Your task to perform on an android device: all mails in gmail Image 0: 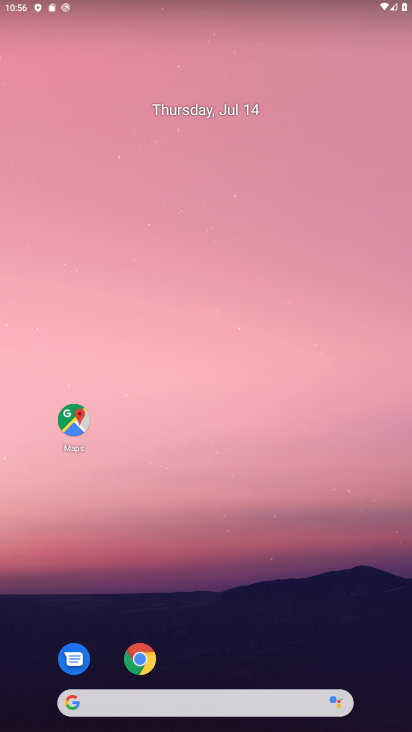
Step 0: drag from (230, 684) to (290, 387)
Your task to perform on an android device: all mails in gmail Image 1: 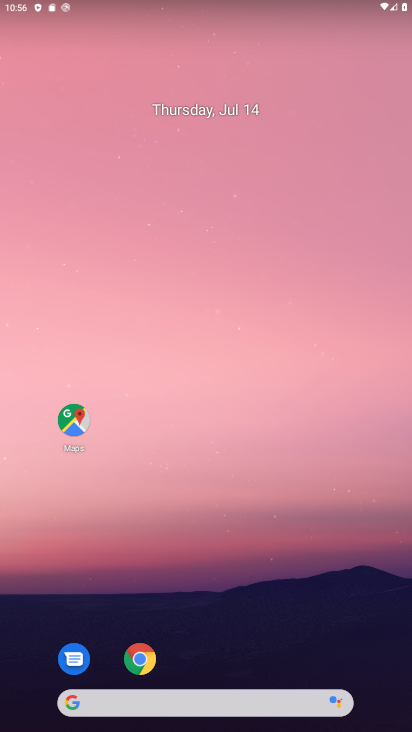
Step 1: drag from (230, 615) to (331, 55)
Your task to perform on an android device: all mails in gmail Image 2: 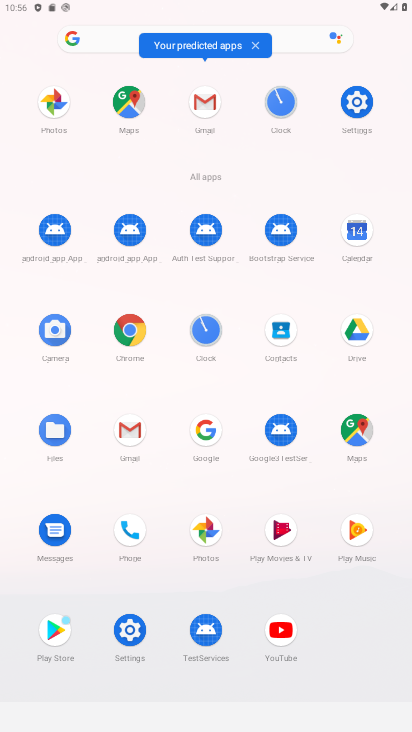
Step 2: click (131, 429)
Your task to perform on an android device: all mails in gmail Image 3: 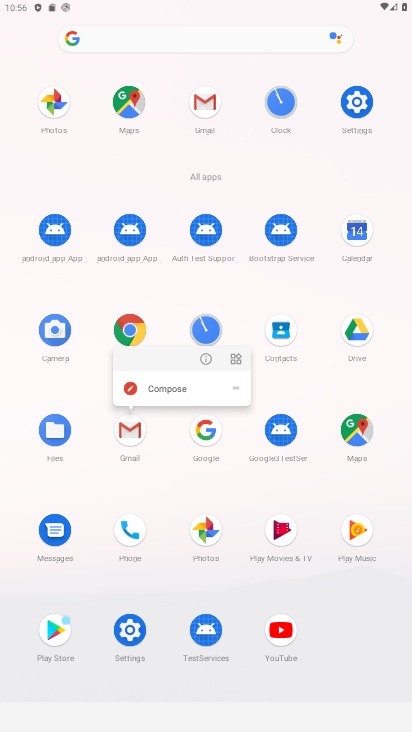
Step 3: click (131, 428)
Your task to perform on an android device: all mails in gmail Image 4: 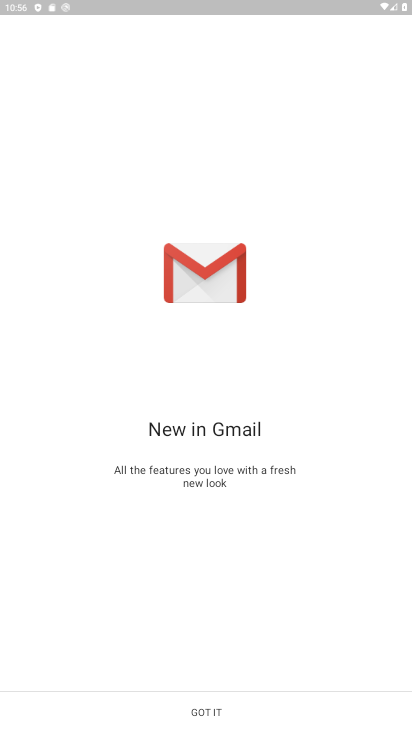
Step 4: click (200, 711)
Your task to perform on an android device: all mails in gmail Image 5: 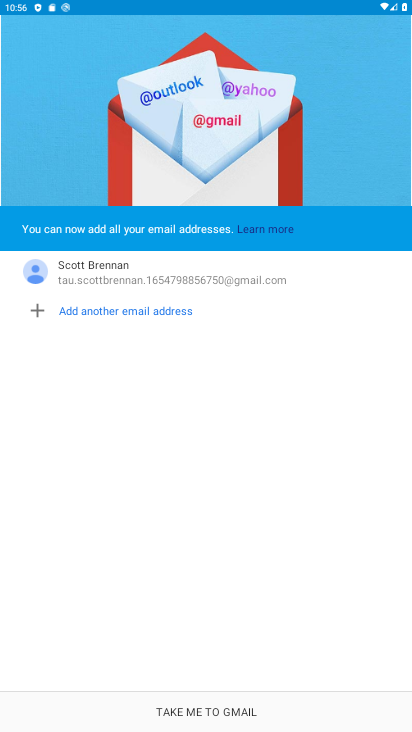
Step 5: click (206, 711)
Your task to perform on an android device: all mails in gmail Image 6: 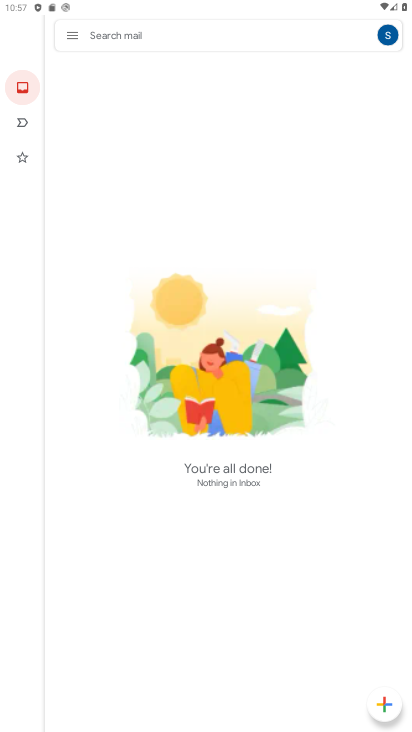
Step 6: click (75, 46)
Your task to perform on an android device: all mails in gmail Image 7: 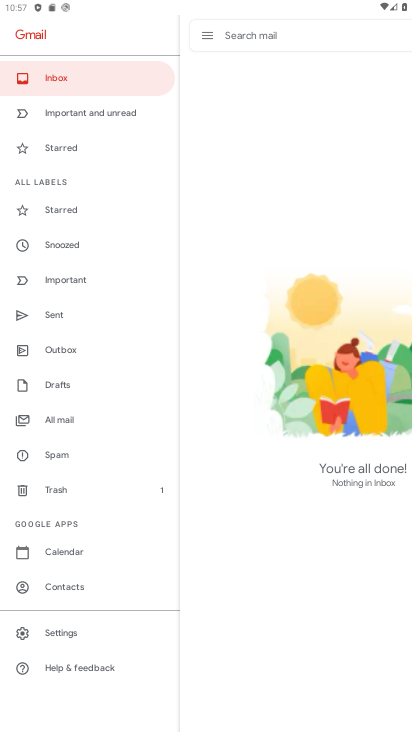
Step 7: click (73, 415)
Your task to perform on an android device: all mails in gmail Image 8: 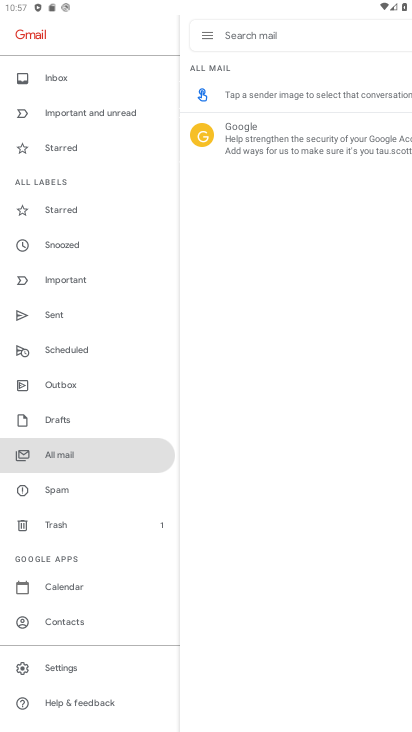
Step 8: task complete